Your task to perform on an android device: turn off location history Image 0: 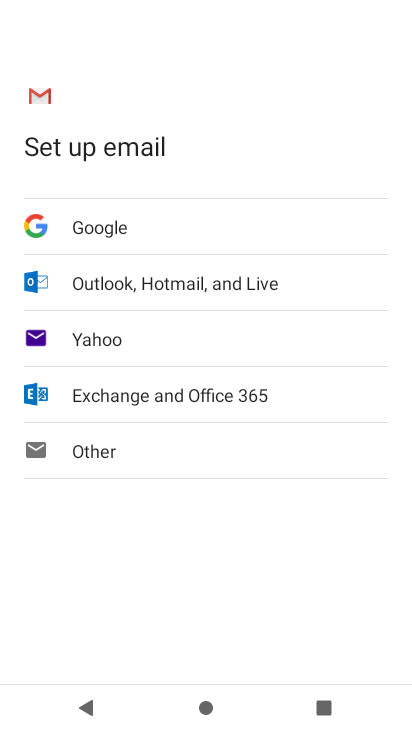
Step 0: press back button
Your task to perform on an android device: turn off location history Image 1: 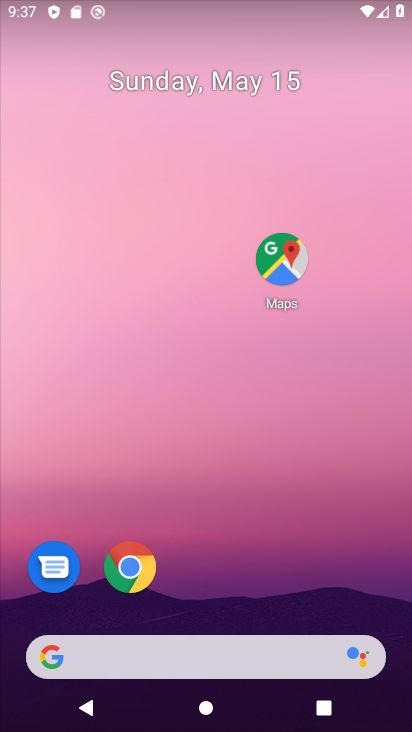
Step 1: drag from (243, 535) to (208, 60)
Your task to perform on an android device: turn off location history Image 2: 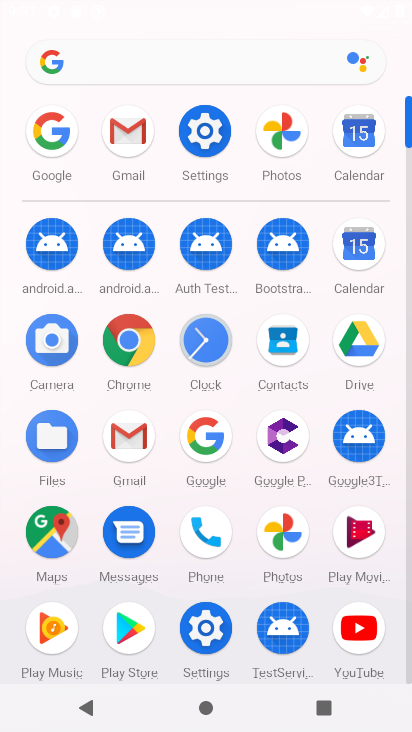
Step 2: click (201, 138)
Your task to perform on an android device: turn off location history Image 3: 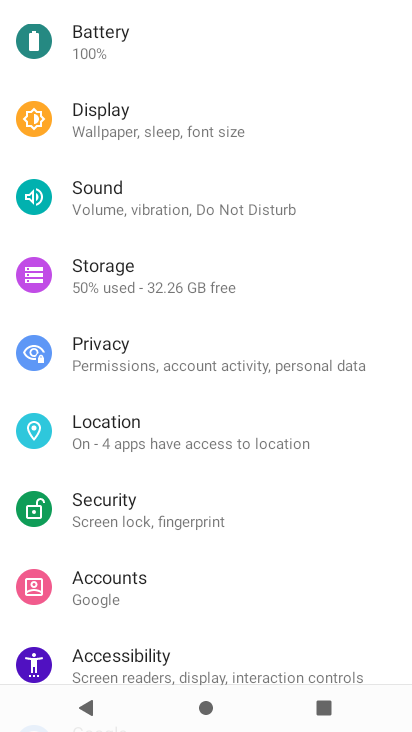
Step 3: click (165, 435)
Your task to perform on an android device: turn off location history Image 4: 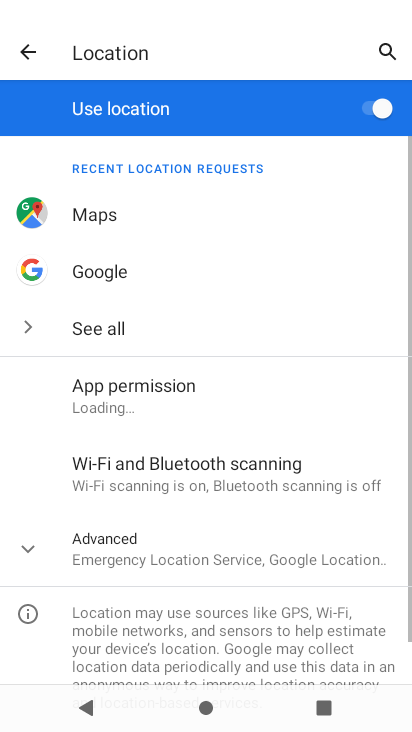
Step 4: drag from (208, 511) to (200, 245)
Your task to perform on an android device: turn off location history Image 5: 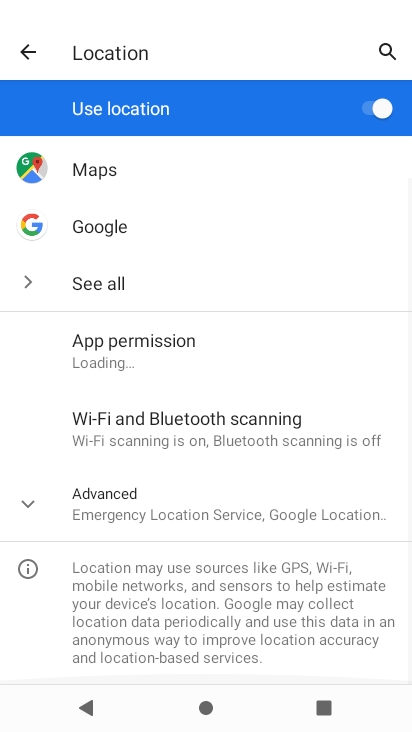
Step 5: click (135, 512)
Your task to perform on an android device: turn off location history Image 6: 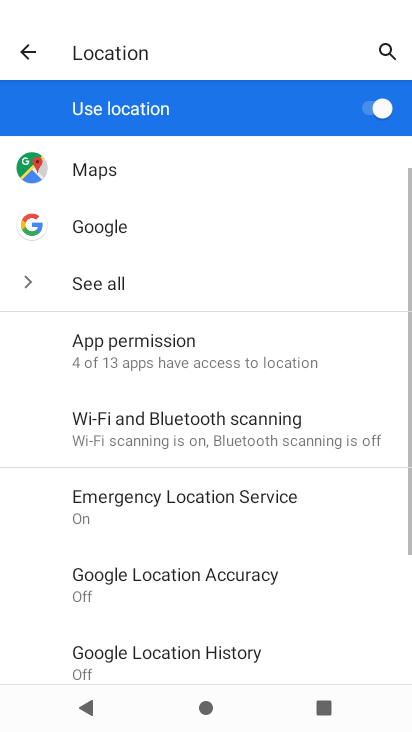
Step 6: drag from (237, 537) to (236, 274)
Your task to perform on an android device: turn off location history Image 7: 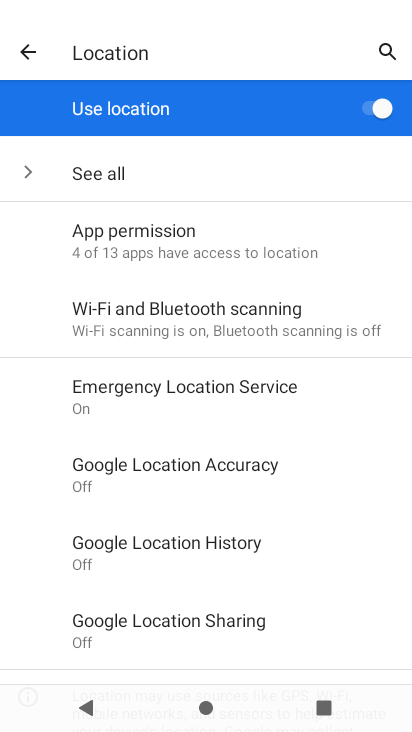
Step 7: click (210, 544)
Your task to perform on an android device: turn off location history Image 8: 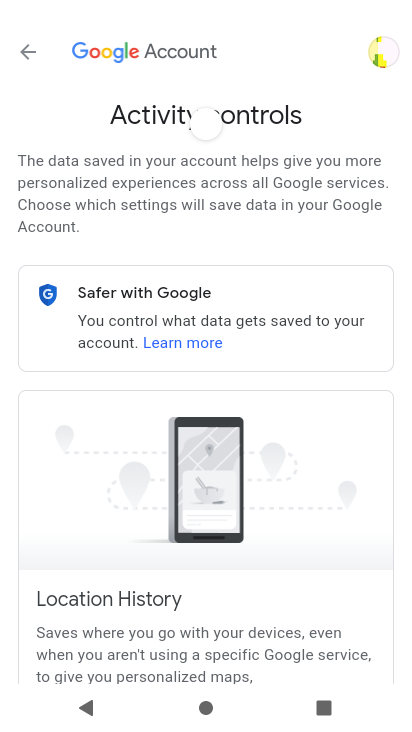
Step 8: task complete